Your task to perform on an android device: turn on wifi Image 0: 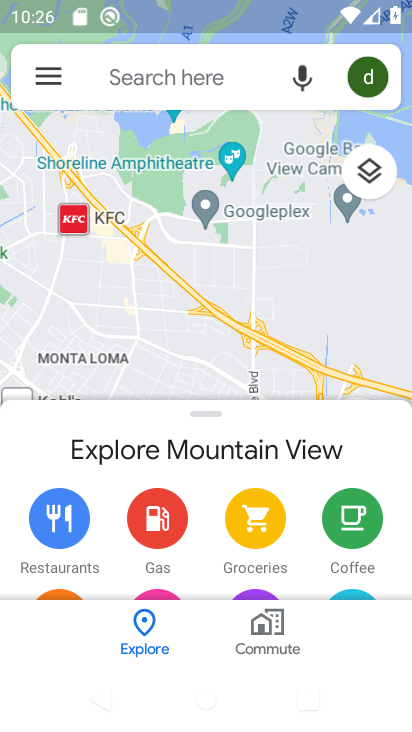
Step 0: press home button
Your task to perform on an android device: turn on wifi Image 1: 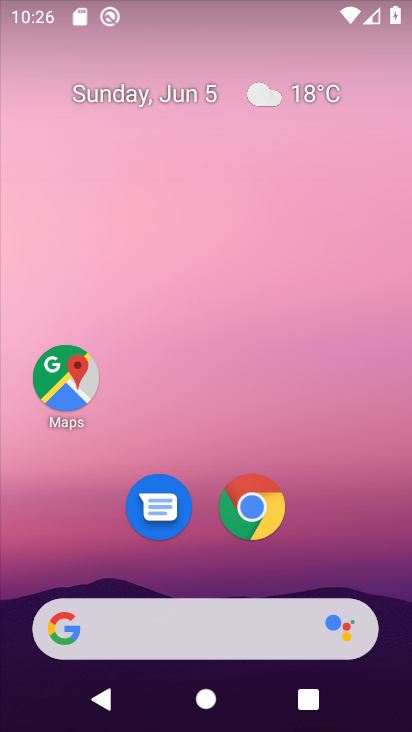
Step 1: drag from (222, 561) to (300, 0)
Your task to perform on an android device: turn on wifi Image 2: 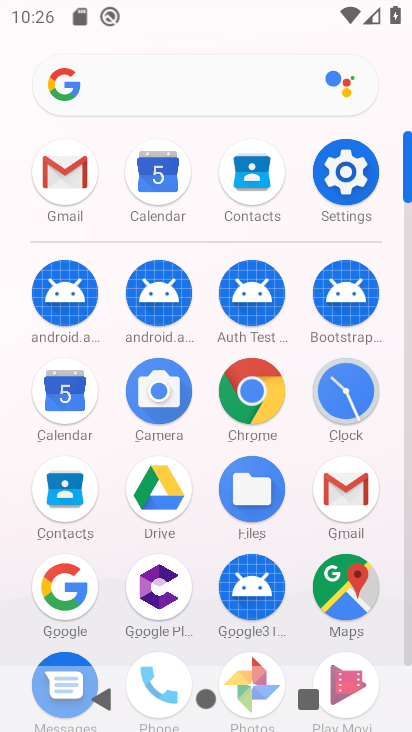
Step 2: click (331, 187)
Your task to perform on an android device: turn on wifi Image 3: 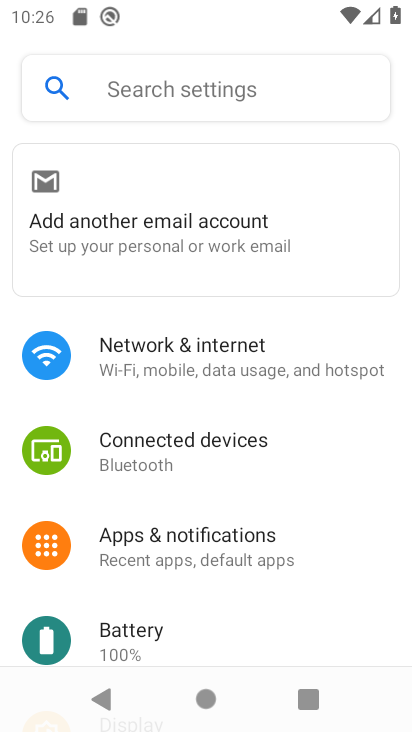
Step 3: click (232, 360)
Your task to perform on an android device: turn on wifi Image 4: 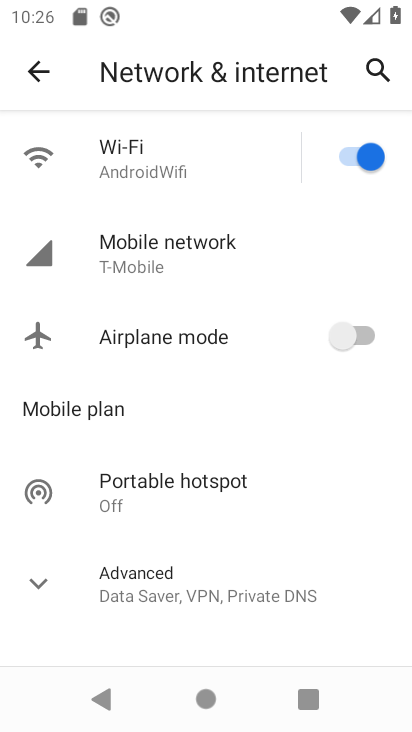
Step 4: task complete